Your task to perform on an android device: Do I have any events tomorrow? Image 0: 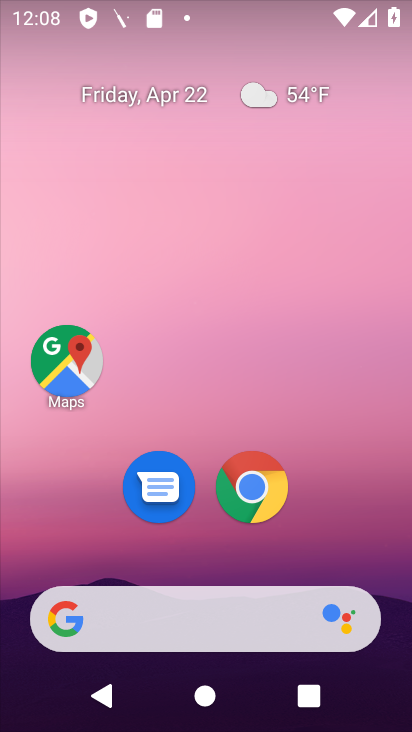
Step 0: drag from (202, 534) to (249, 110)
Your task to perform on an android device: Do I have any events tomorrow? Image 1: 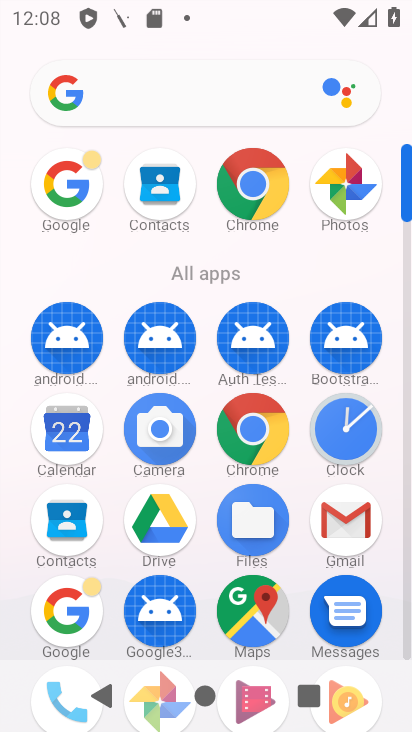
Step 1: click (81, 442)
Your task to perform on an android device: Do I have any events tomorrow? Image 2: 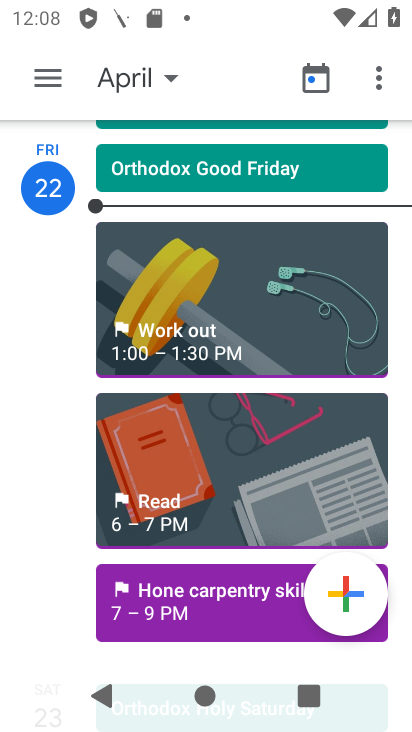
Step 2: task complete